Your task to perform on an android device: turn off smart reply in the gmail app Image 0: 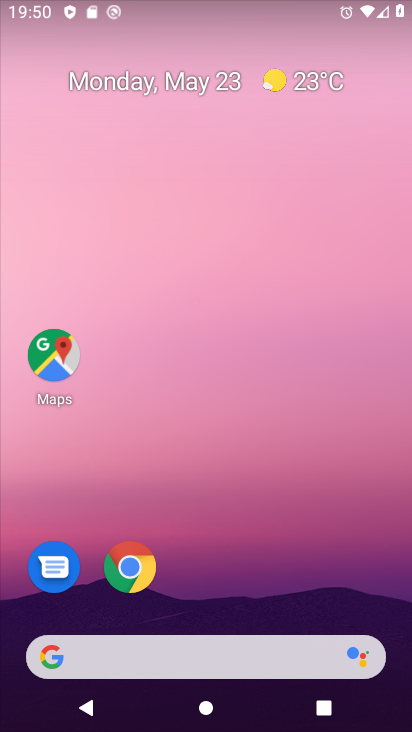
Step 0: drag from (282, 585) to (279, 187)
Your task to perform on an android device: turn off smart reply in the gmail app Image 1: 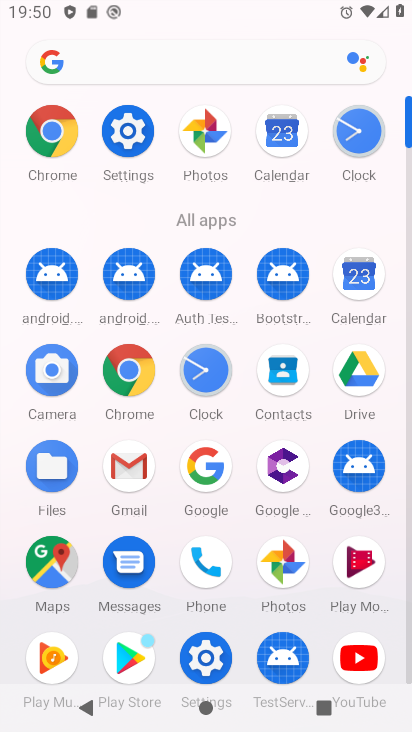
Step 1: click (131, 454)
Your task to perform on an android device: turn off smart reply in the gmail app Image 2: 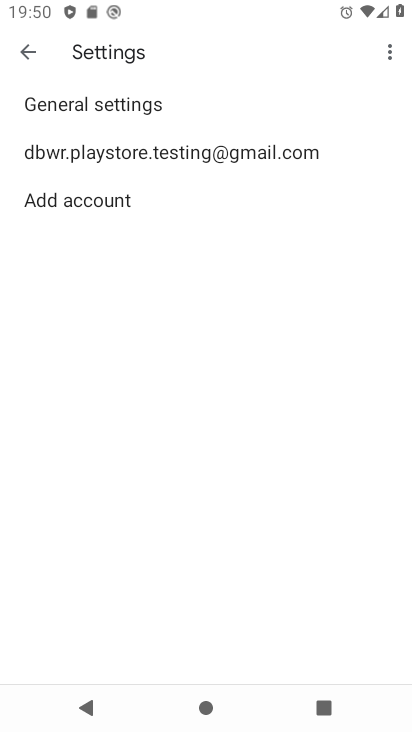
Step 2: click (133, 138)
Your task to perform on an android device: turn off smart reply in the gmail app Image 3: 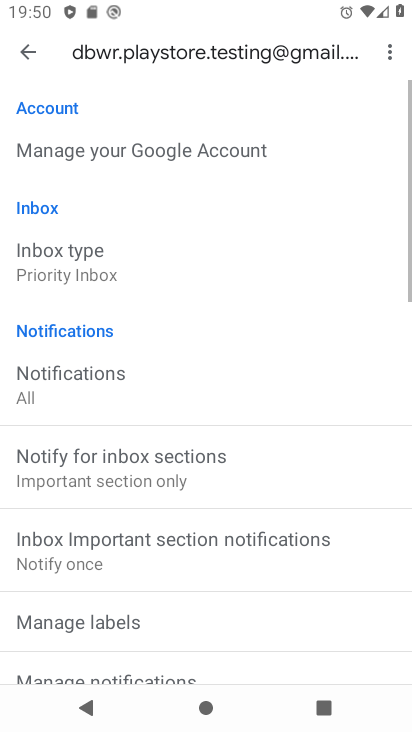
Step 3: drag from (154, 632) to (246, 169)
Your task to perform on an android device: turn off smart reply in the gmail app Image 4: 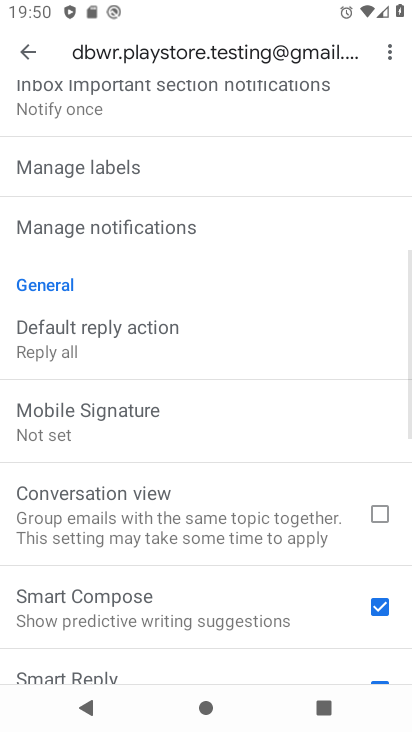
Step 4: drag from (156, 615) to (231, 239)
Your task to perform on an android device: turn off smart reply in the gmail app Image 5: 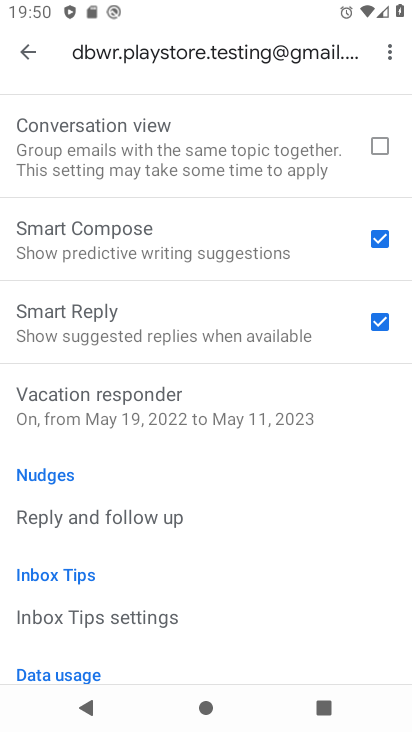
Step 5: click (387, 320)
Your task to perform on an android device: turn off smart reply in the gmail app Image 6: 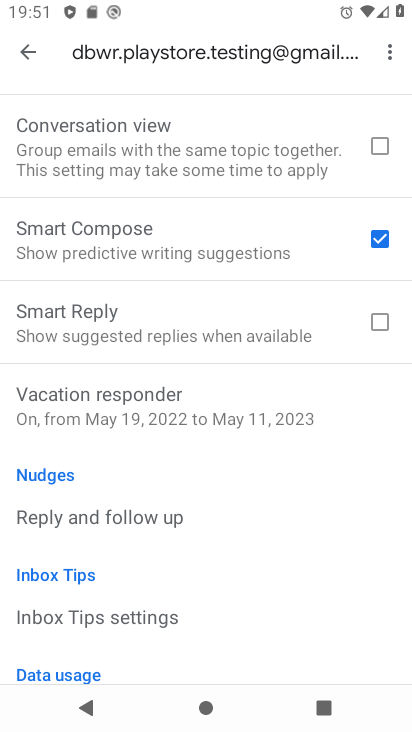
Step 6: task complete